Your task to perform on an android device: toggle airplane mode Image 0: 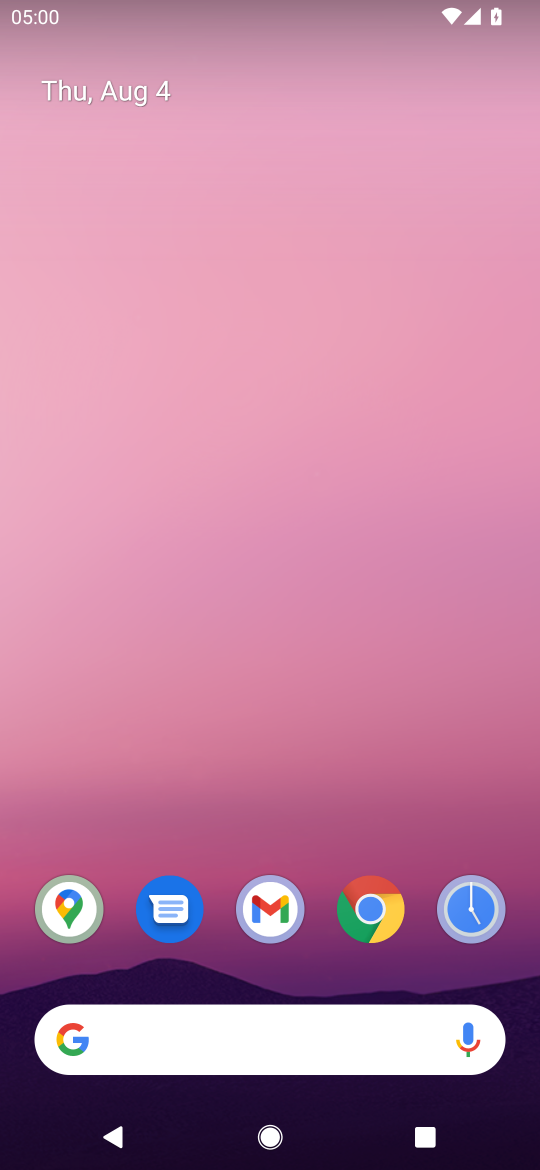
Step 0: press home button
Your task to perform on an android device: toggle airplane mode Image 1: 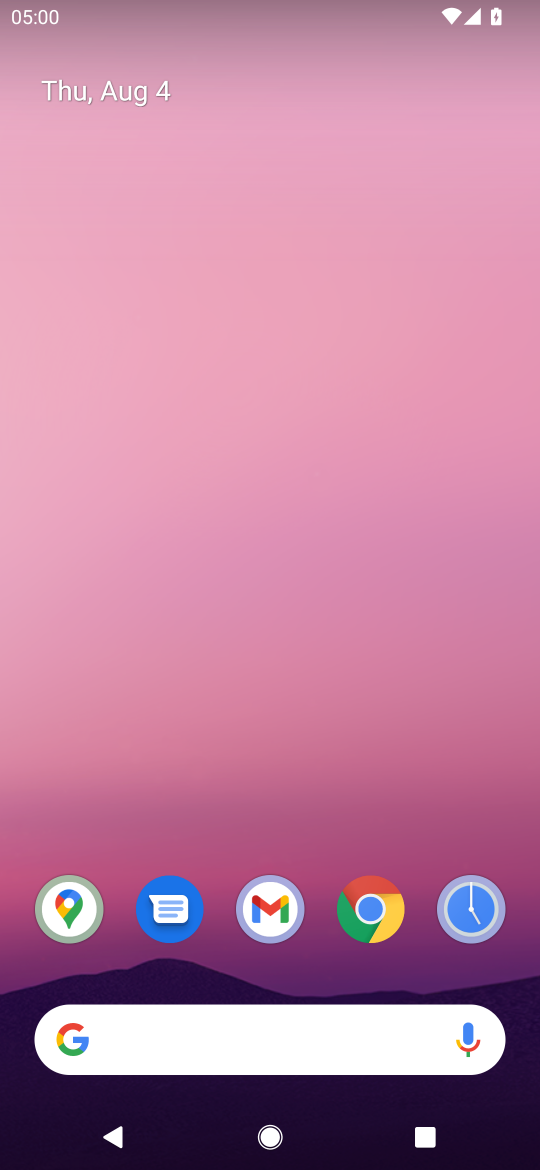
Step 1: press home button
Your task to perform on an android device: toggle airplane mode Image 2: 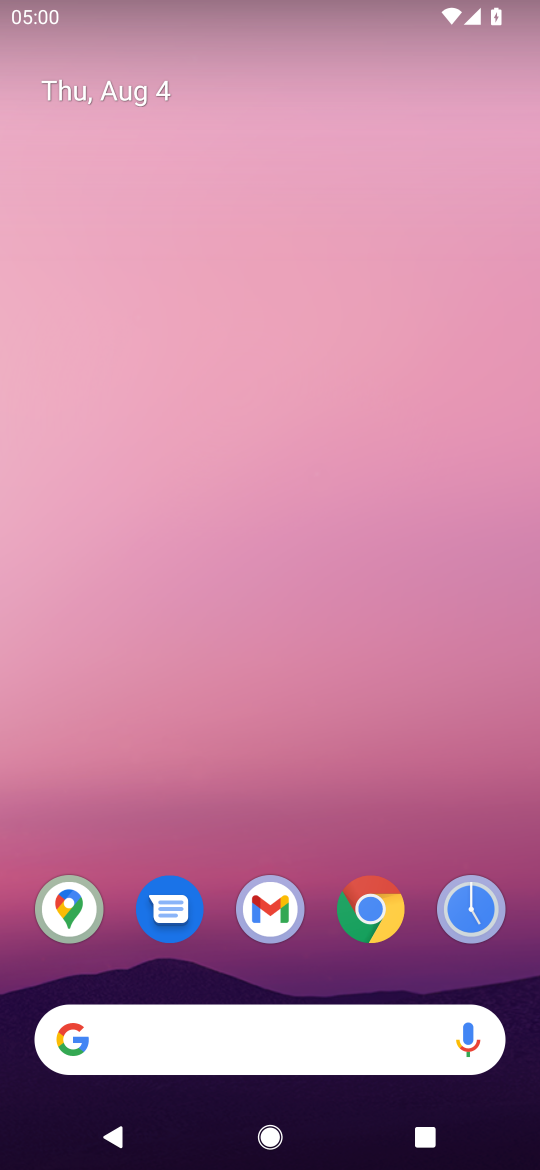
Step 2: drag from (299, 6) to (358, 418)
Your task to perform on an android device: toggle airplane mode Image 3: 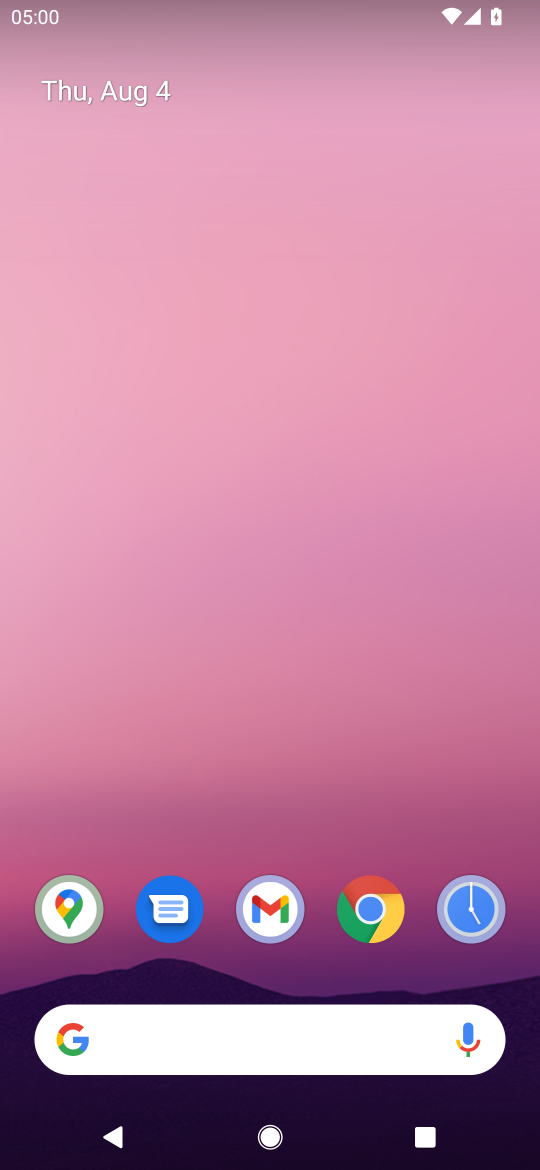
Step 3: drag from (246, 1) to (385, 783)
Your task to perform on an android device: toggle airplane mode Image 4: 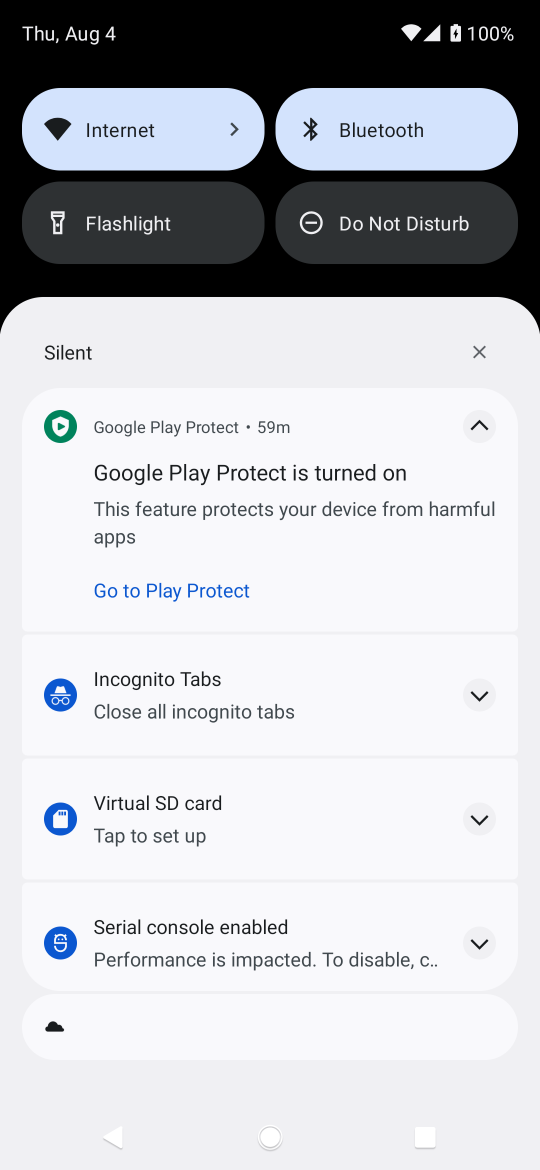
Step 4: drag from (341, 287) to (346, 784)
Your task to perform on an android device: toggle airplane mode Image 5: 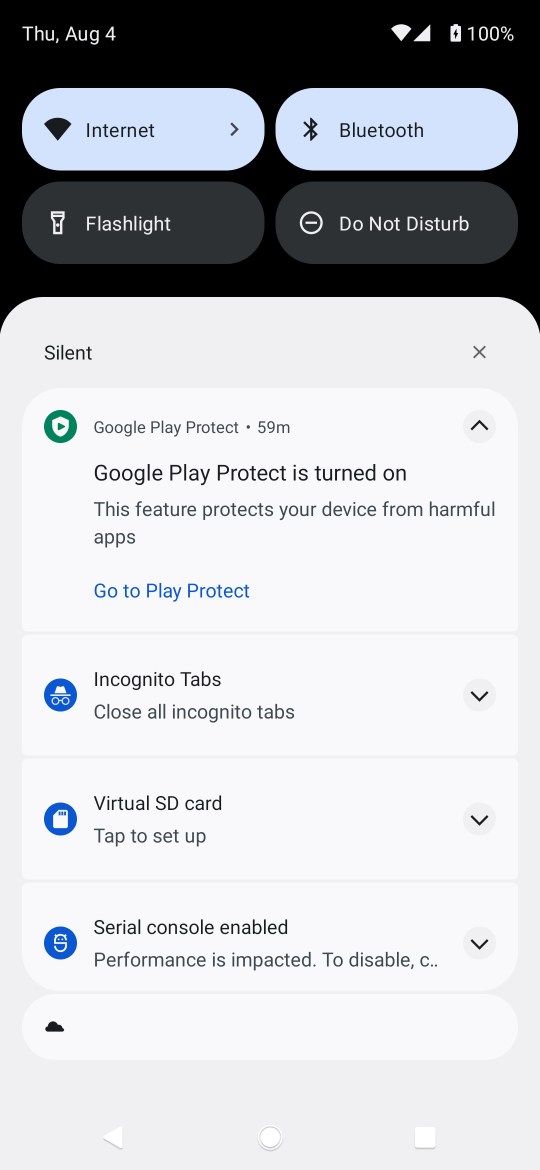
Step 5: drag from (255, 276) to (296, 680)
Your task to perform on an android device: toggle airplane mode Image 6: 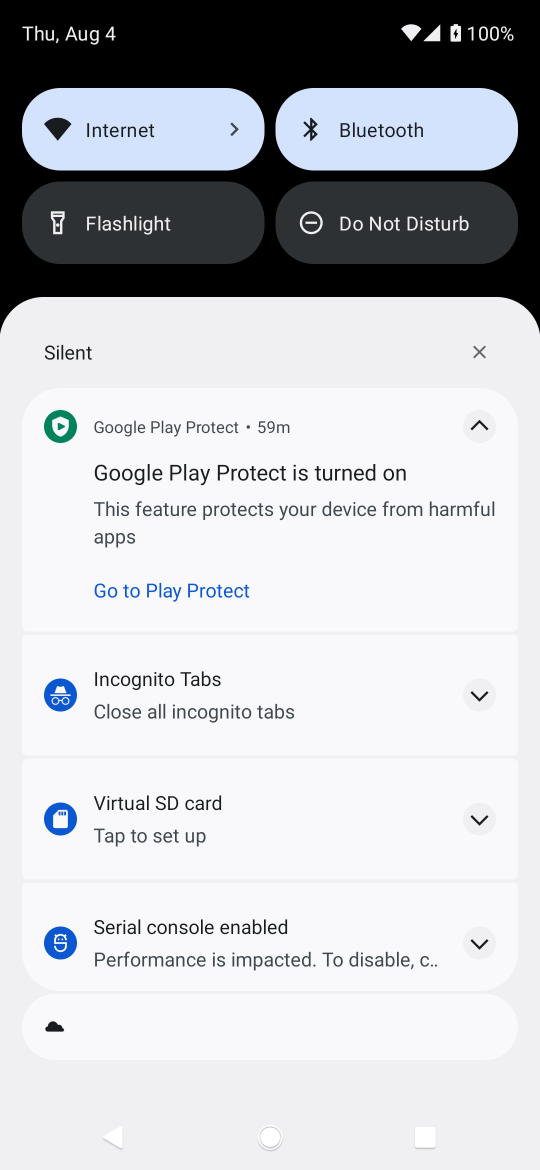
Step 6: drag from (274, 269) to (269, 1151)
Your task to perform on an android device: toggle airplane mode Image 7: 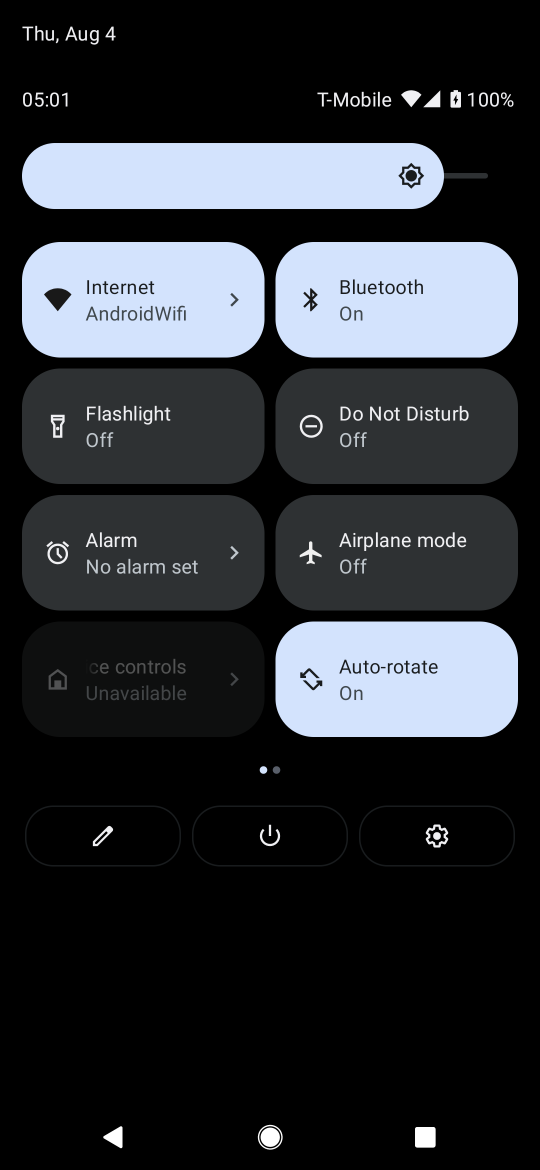
Step 7: click (357, 552)
Your task to perform on an android device: toggle airplane mode Image 8: 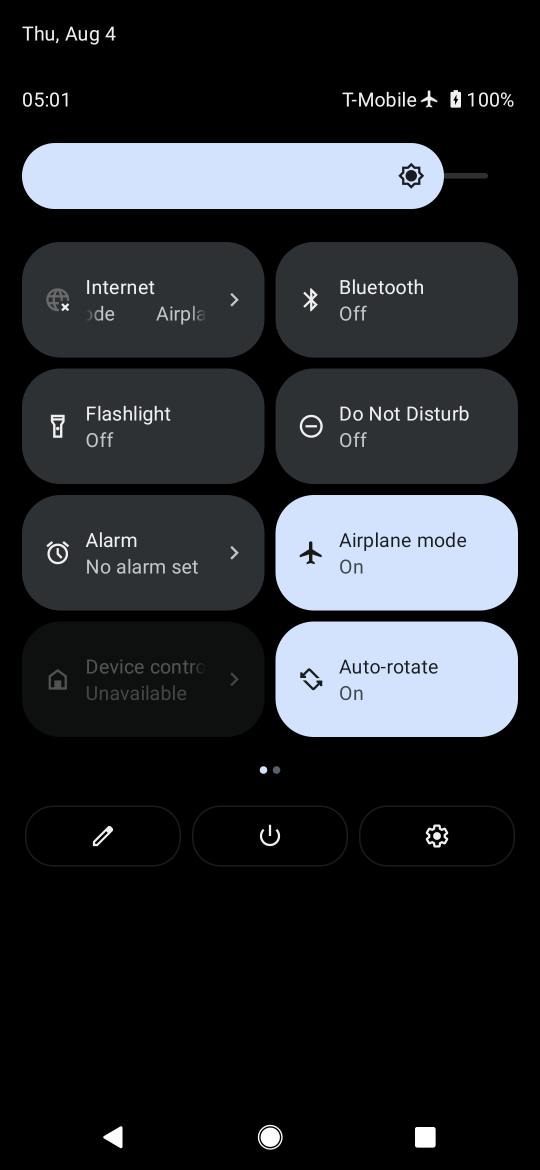
Step 8: task complete